Your task to perform on an android device: Open sound settings Image 0: 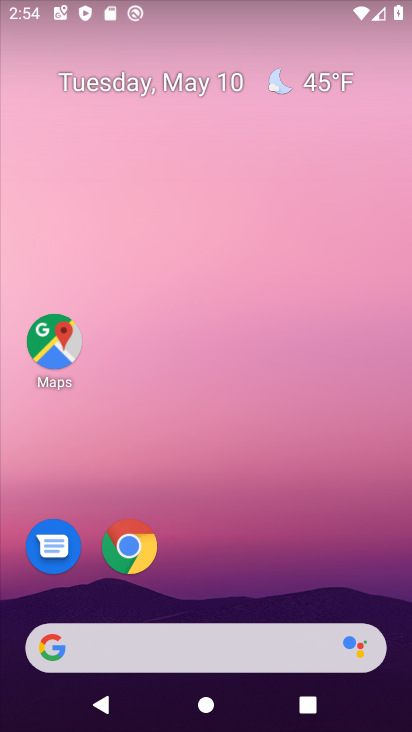
Step 0: drag from (205, 551) to (210, 39)
Your task to perform on an android device: Open sound settings Image 1: 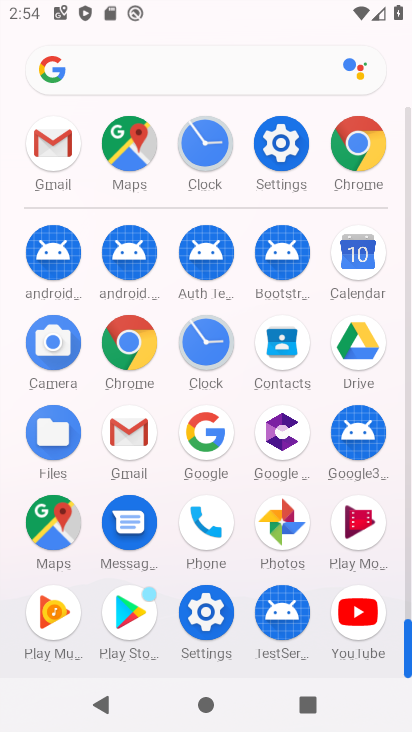
Step 1: click (202, 612)
Your task to perform on an android device: Open sound settings Image 2: 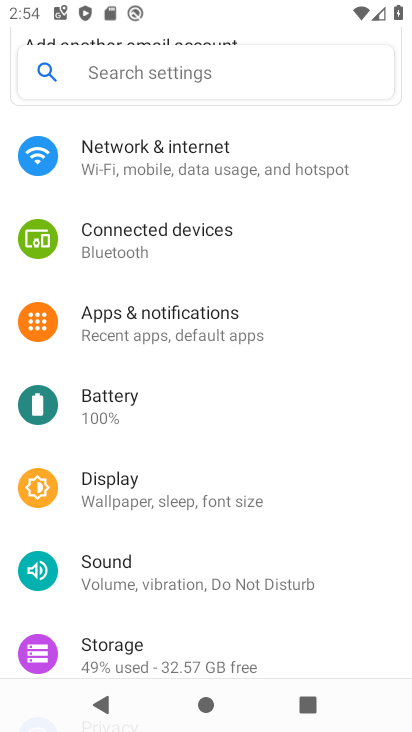
Step 2: drag from (231, 604) to (287, 228)
Your task to perform on an android device: Open sound settings Image 3: 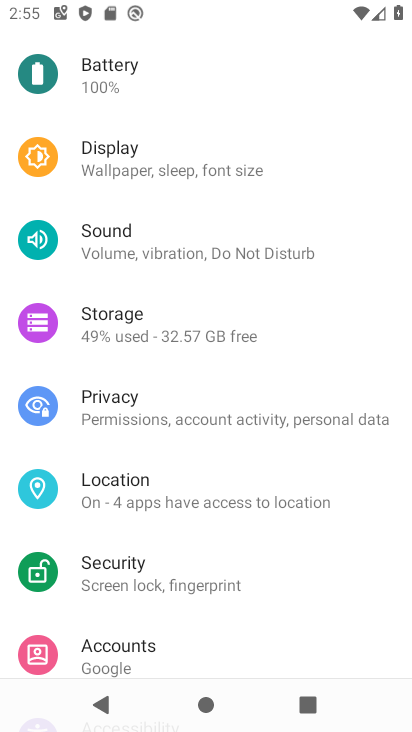
Step 3: click (112, 250)
Your task to perform on an android device: Open sound settings Image 4: 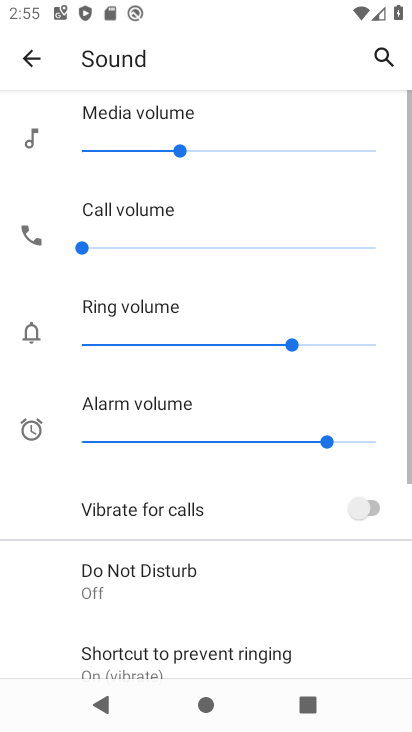
Step 4: drag from (193, 596) to (256, 94)
Your task to perform on an android device: Open sound settings Image 5: 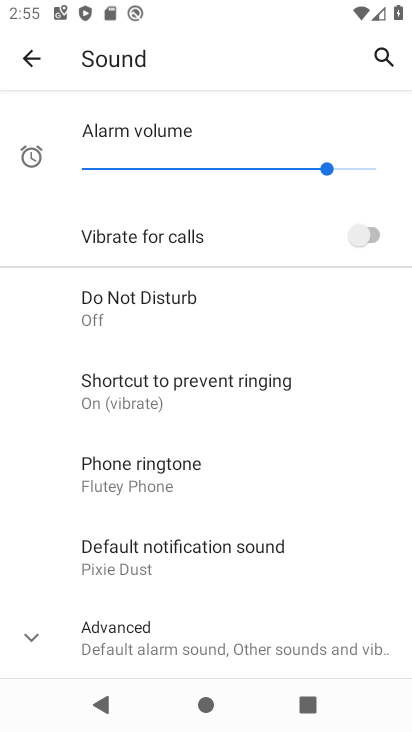
Step 5: click (64, 623)
Your task to perform on an android device: Open sound settings Image 6: 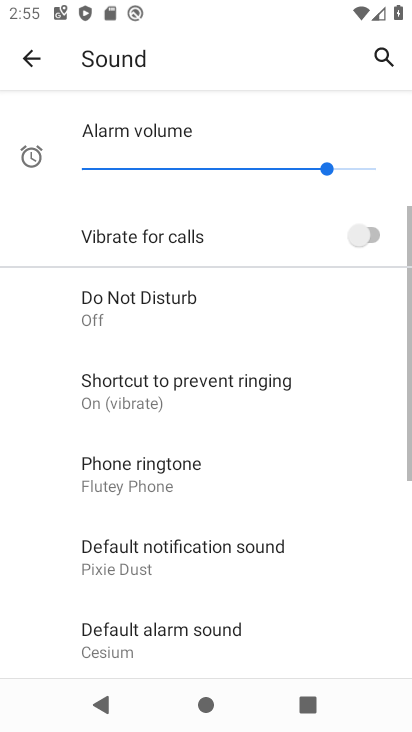
Step 6: task complete